Your task to perform on an android device: Open Reddit.com Image 0: 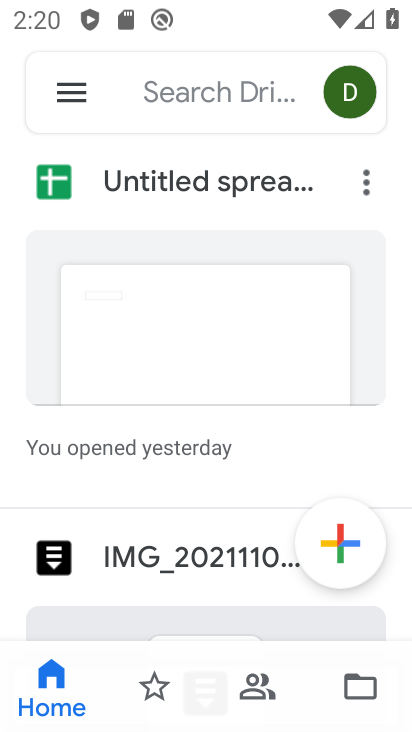
Step 0: press home button
Your task to perform on an android device: Open Reddit.com Image 1: 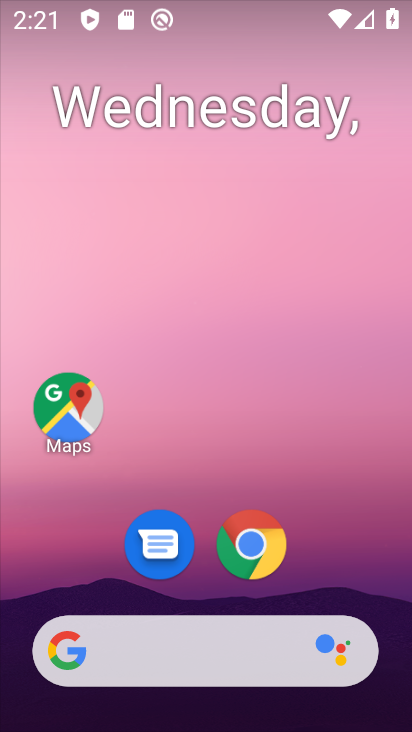
Step 1: drag from (352, 521) to (327, 208)
Your task to perform on an android device: Open Reddit.com Image 2: 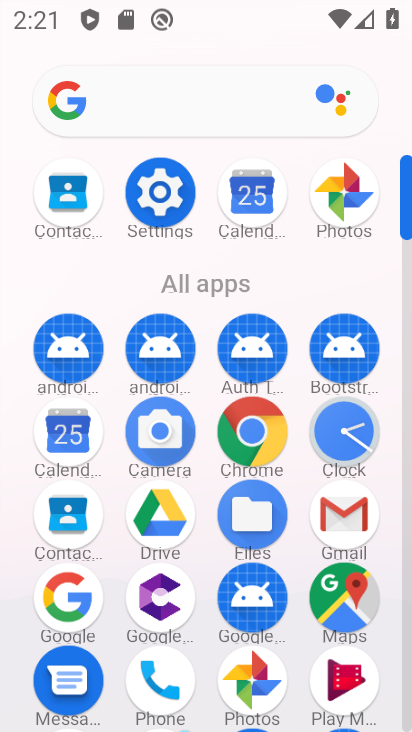
Step 2: click (254, 430)
Your task to perform on an android device: Open Reddit.com Image 3: 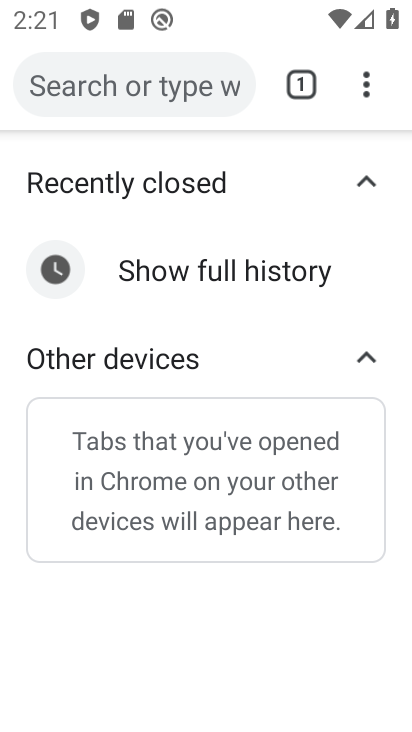
Step 3: click (151, 83)
Your task to perform on an android device: Open Reddit.com Image 4: 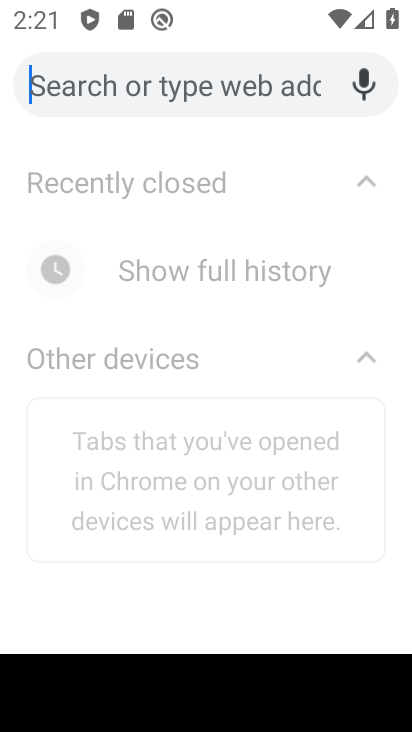
Step 4: type "reddit.com"
Your task to perform on an android device: Open Reddit.com Image 5: 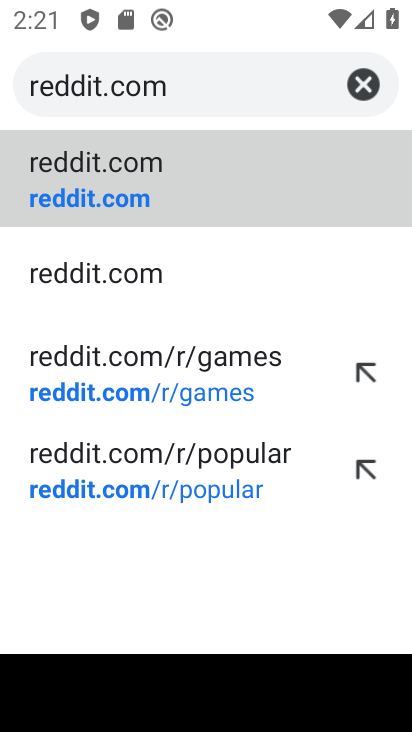
Step 5: click (121, 211)
Your task to perform on an android device: Open Reddit.com Image 6: 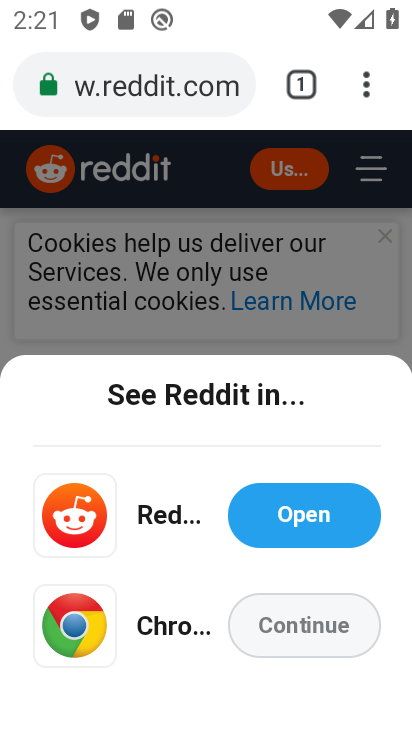
Step 6: task complete